Your task to perform on an android device: Do I have any events tomorrow? Image 0: 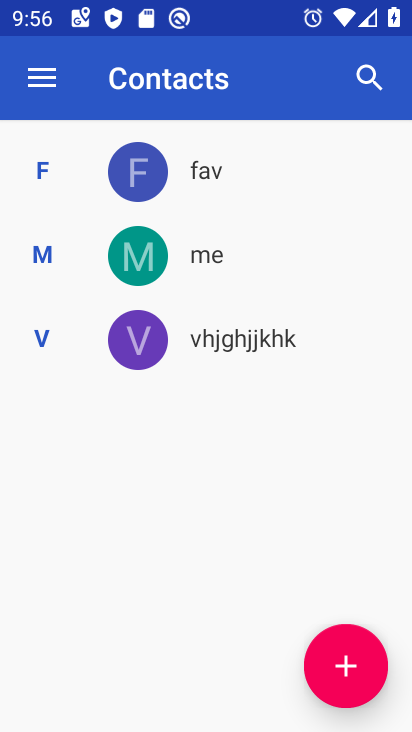
Step 0: press home button
Your task to perform on an android device: Do I have any events tomorrow? Image 1: 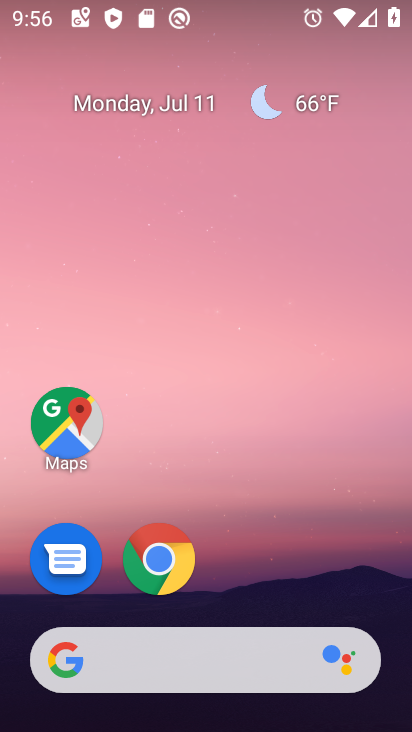
Step 1: drag from (351, 567) to (370, 219)
Your task to perform on an android device: Do I have any events tomorrow? Image 2: 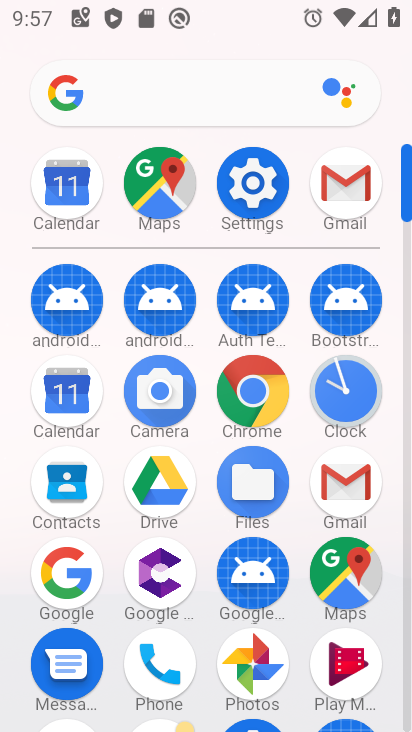
Step 2: click (69, 390)
Your task to perform on an android device: Do I have any events tomorrow? Image 3: 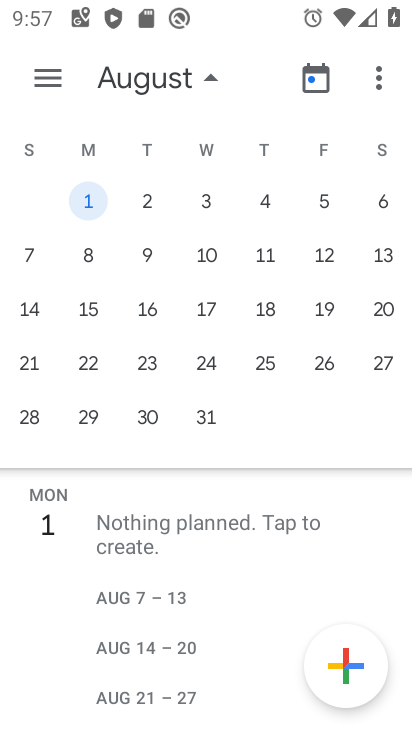
Step 3: drag from (221, 537) to (221, 301)
Your task to perform on an android device: Do I have any events tomorrow? Image 4: 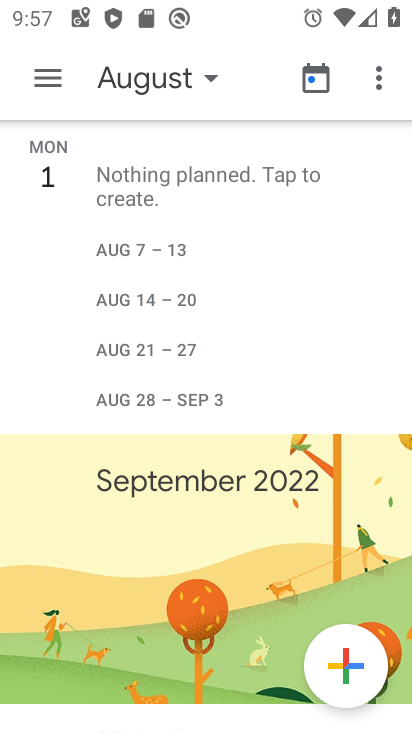
Step 4: drag from (208, 228) to (225, 356)
Your task to perform on an android device: Do I have any events tomorrow? Image 5: 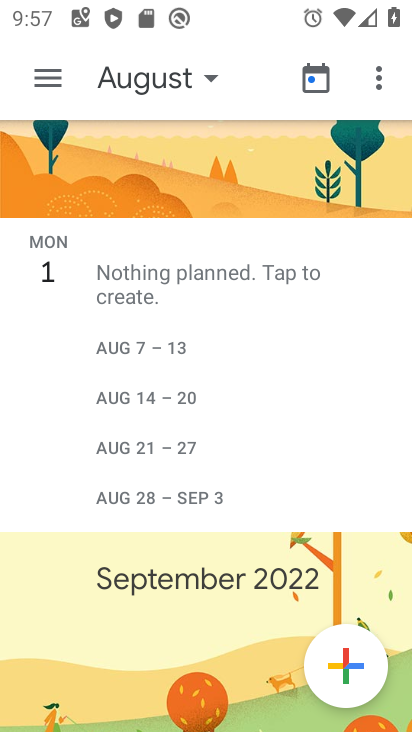
Step 5: drag from (201, 202) to (217, 364)
Your task to perform on an android device: Do I have any events tomorrow? Image 6: 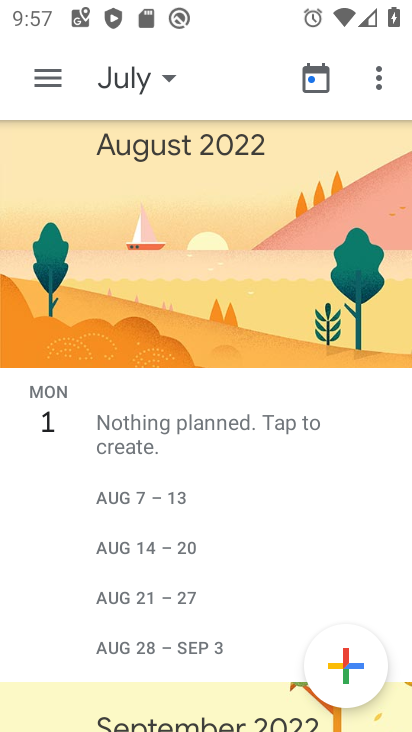
Step 6: drag from (205, 181) to (220, 393)
Your task to perform on an android device: Do I have any events tomorrow? Image 7: 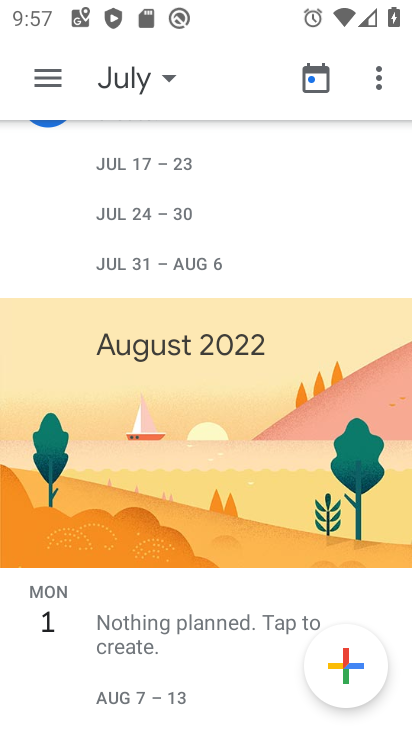
Step 7: drag from (214, 170) to (214, 344)
Your task to perform on an android device: Do I have any events tomorrow? Image 8: 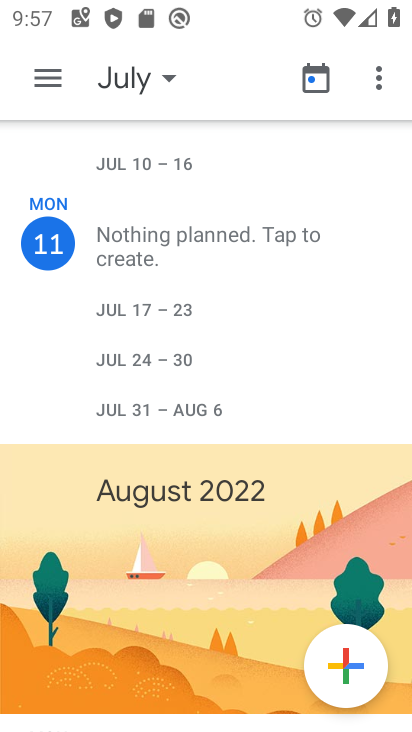
Step 8: click (169, 73)
Your task to perform on an android device: Do I have any events tomorrow? Image 9: 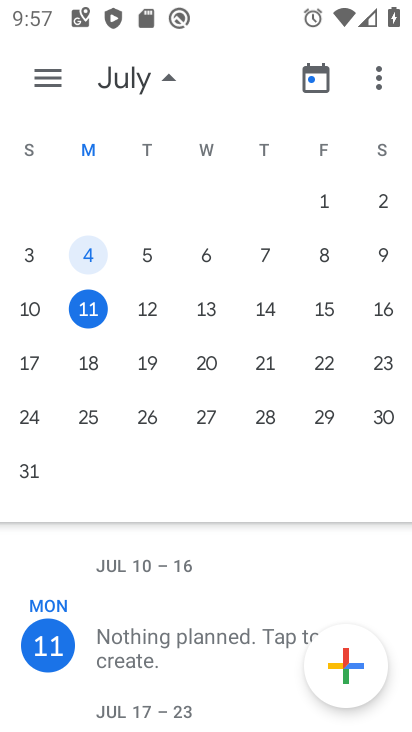
Step 9: click (212, 317)
Your task to perform on an android device: Do I have any events tomorrow? Image 10: 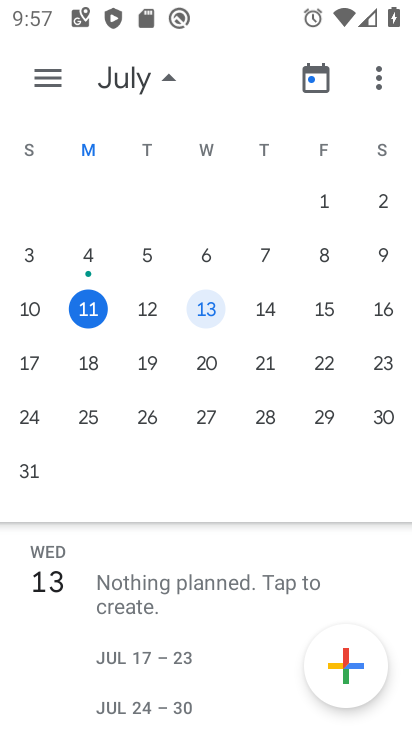
Step 10: task complete